Your task to perform on an android device: Open wifi settings Image 0: 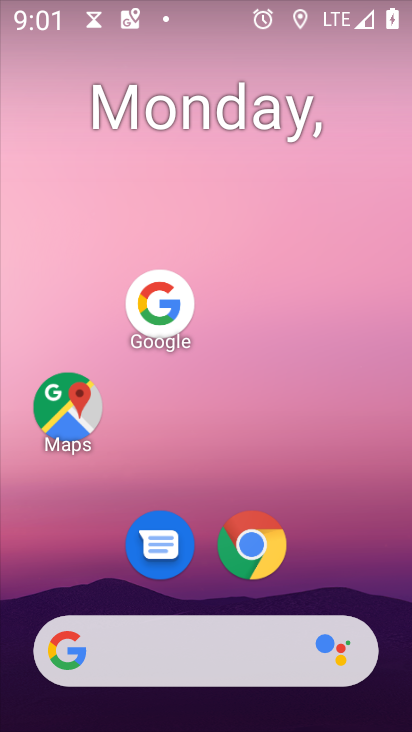
Step 0: drag from (191, 650) to (342, 141)
Your task to perform on an android device: Open wifi settings Image 1: 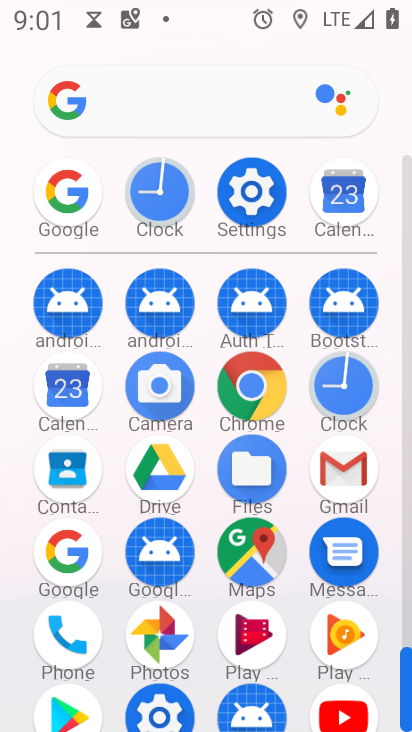
Step 1: click (267, 202)
Your task to perform on an android device: Open wifi settings Image 2: 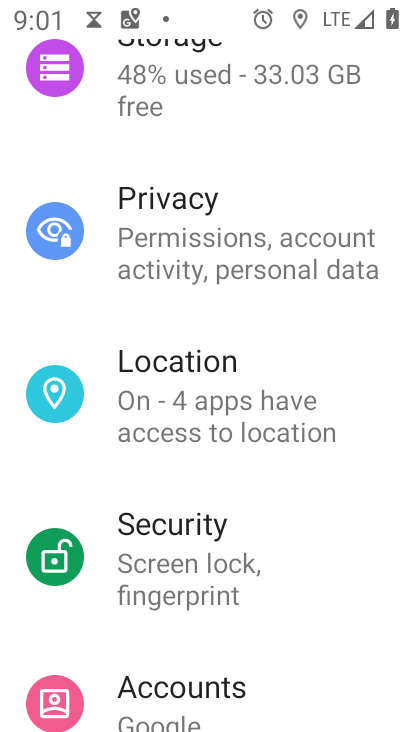
Step 2: drag from (289, 142) to (220, 642)
Your task to perform on an android device: Open wifi settings Image 3: 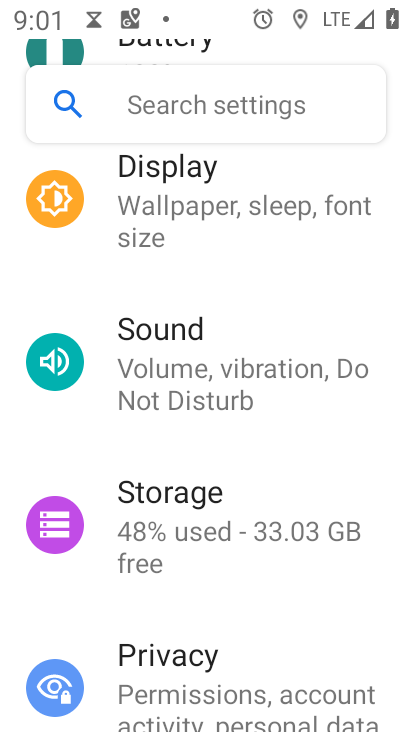
Step 3: drag from (316, 158) to (259, 658)
Your task to perform on an android device: Open wifi settings Image 4: 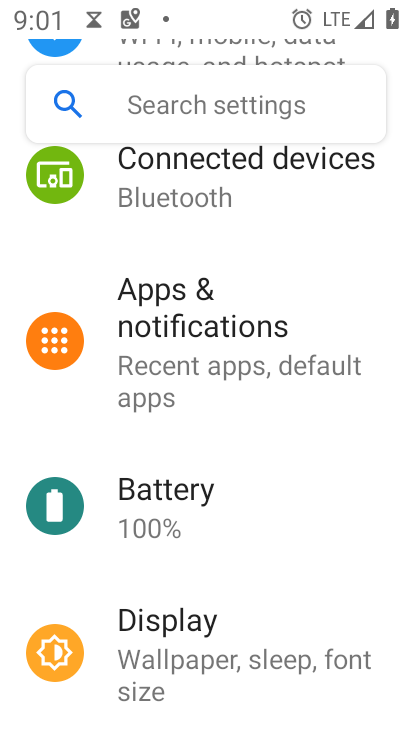
Step 4: drag from (317, 243) to (284, 596)
Your task to perform on an android device: Open wifi settings Image 5: 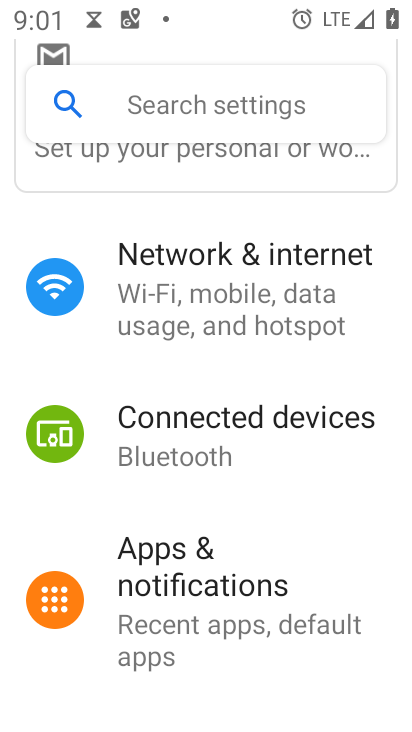
Step 5: click (232, 266)
Your task to perform on an android device: Open wifi settings Image 6: 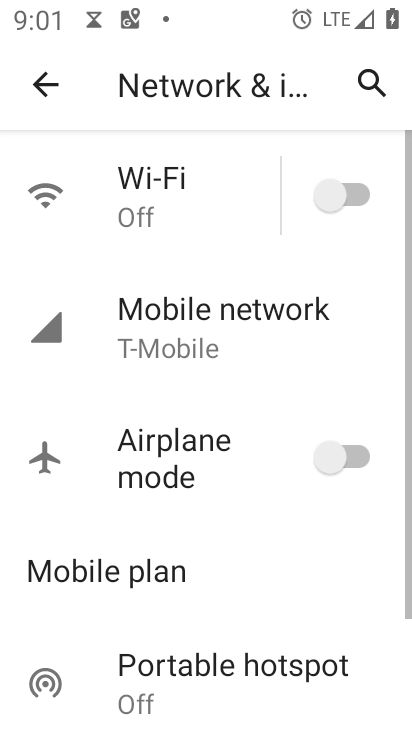
Step 6: click (153, 216)
Your task to perform on an android device: Open wifi settings Image 7: 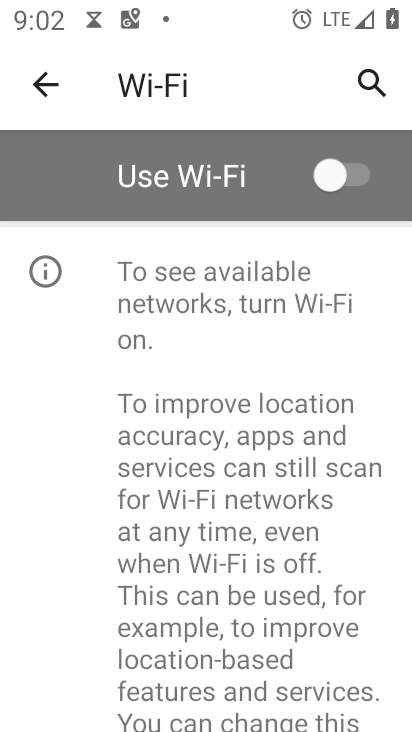
Step 7: task complete